Your task to perform on an android device: toggle javascript in the chrome app Image 0: 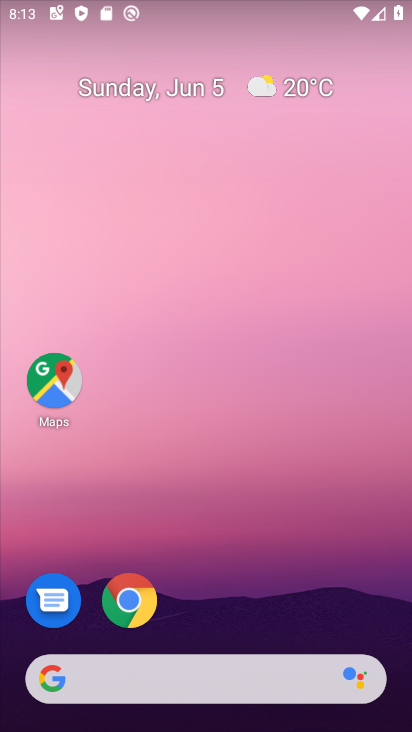
Step 0: click (137, 614)
Your task to perform on an android device: toggle javascript in the chrome app Image 1: 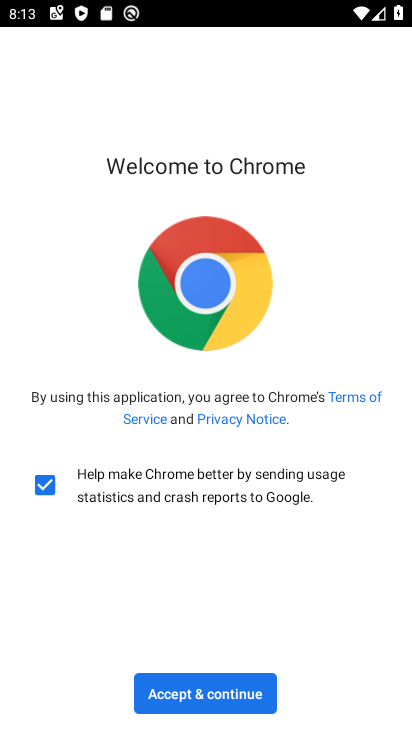
Step 1: click (240, 691)
Your task to perform on an android device: toggle javascript in the chrome app Image 2: 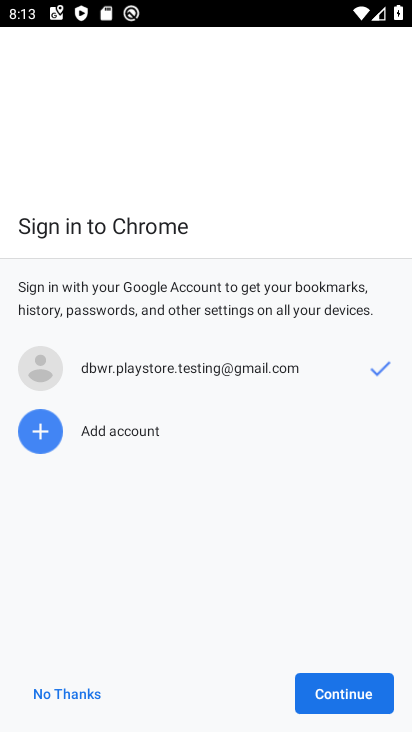
Step 2: click (344, 693)
Your task to perform on an android device: toggle javascript in the chrome app Image 3: 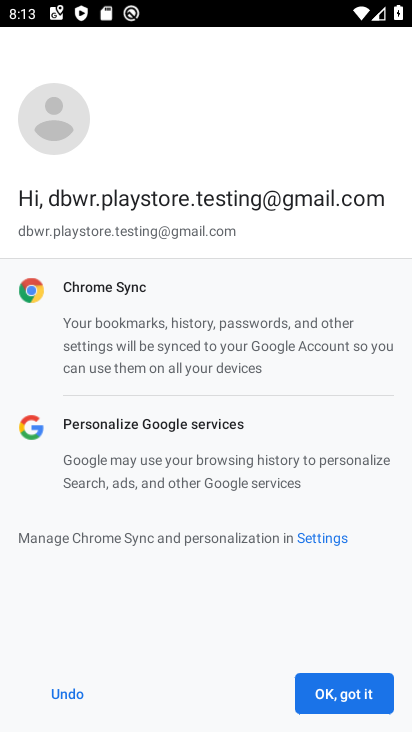
Step 3: click (349, 696)
Your task to perform on an android device: toggle javascript in the chrome app Image 4: 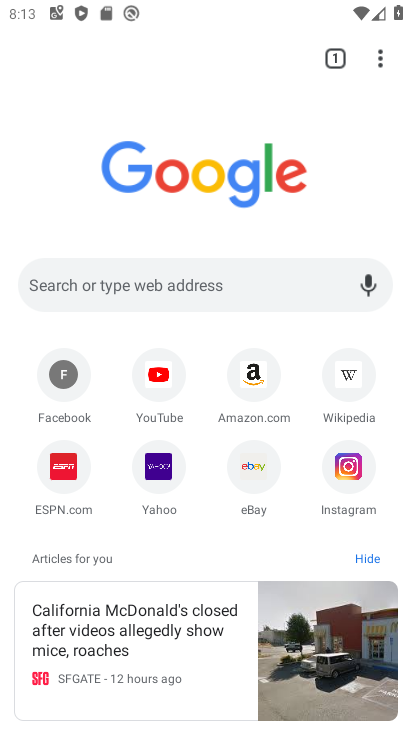
Step 4: drag from (390, 65) to (220, 482)
Your task to perform on an android device: toggle javascript in the chrome app Image 5: 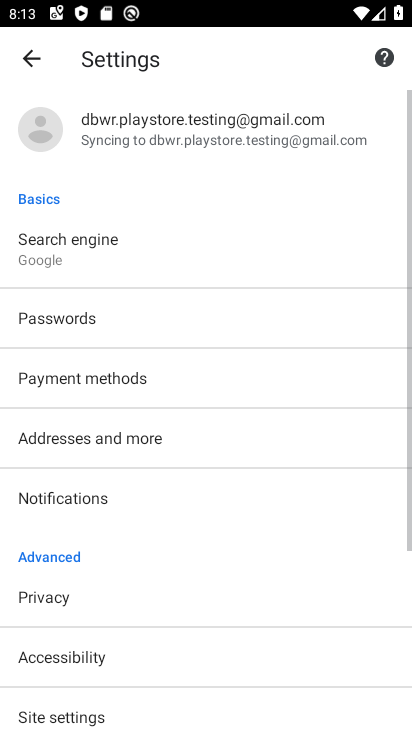
Step 5: drag from (221, 682) to (300, 446)
Your task to perform on an android device: toggle javascript in the chrome app Image 6: 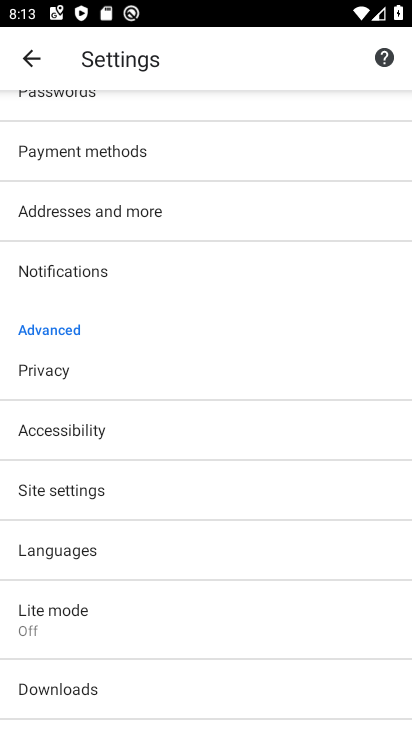
Step 6: drag from (132, 665) to (173, 497)
Your task to perform on an android device: toggle javascript in the chrome app Image 7: 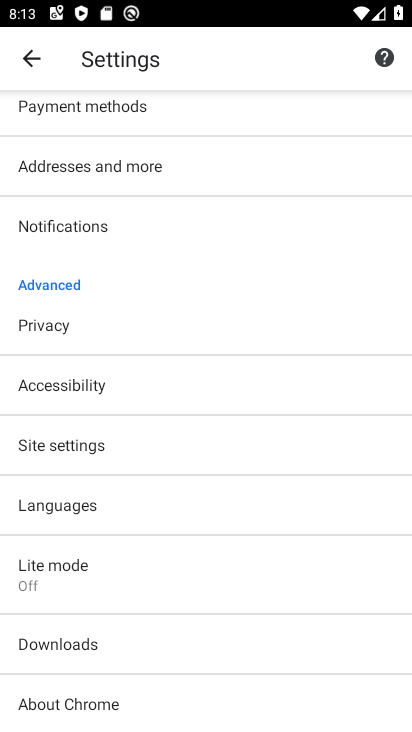
Step 7: click (130, 448)
Your task to perform on an android device: toggle javascript in the chrome app Image 8: 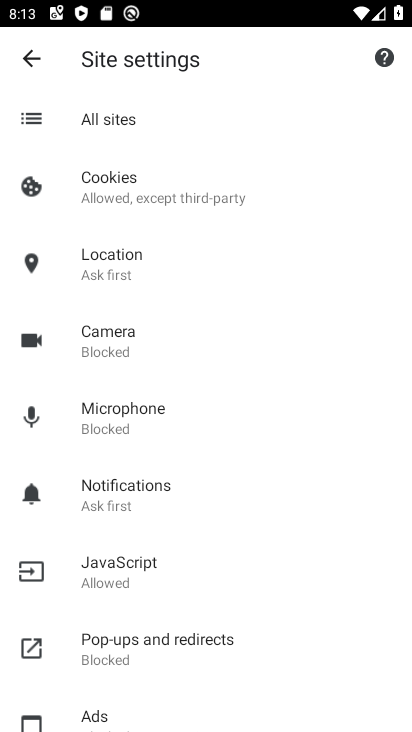
Step 8: click (154, 576)
Your task to perform on an android device: toggle javascript in the chrome app Image 9: 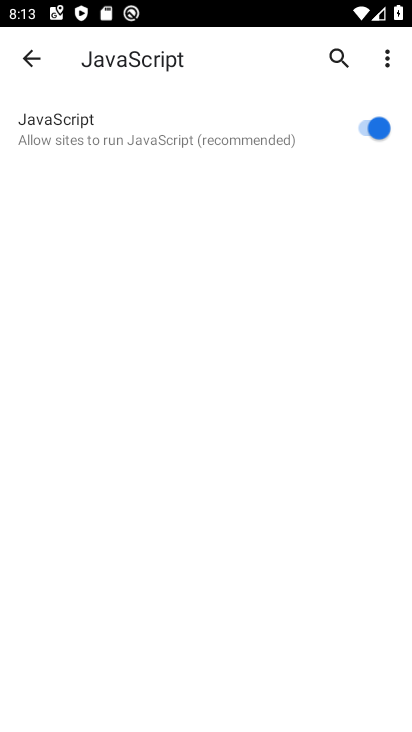
Step 9: click (348, 130)
Your task to perform on an android device: toggle javascript in the chrome app Image 10: 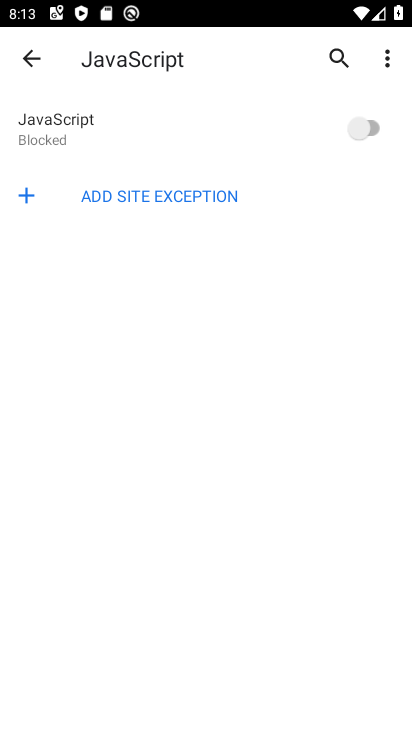
Step 10: task complete